Your task to perform on an android device: see tabs open on other devices in the chrome app Image 0: 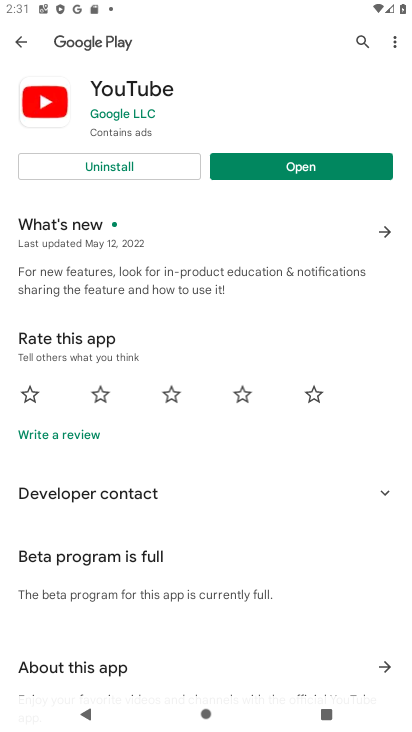
Step 0: press home button
Your task to perform on an android device: see tabs open on other devices in the chrome app Image 1: 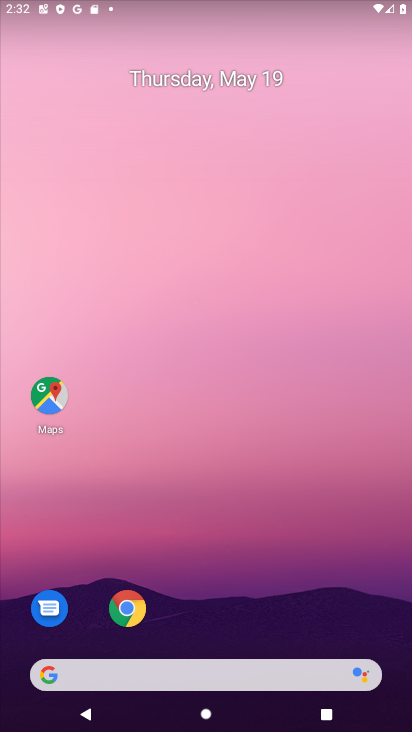
Step 1: drag from (252, 598) to (217, 68)
Your task to perform on an android device: see tabs open on other devices in the chrome app Image 2: 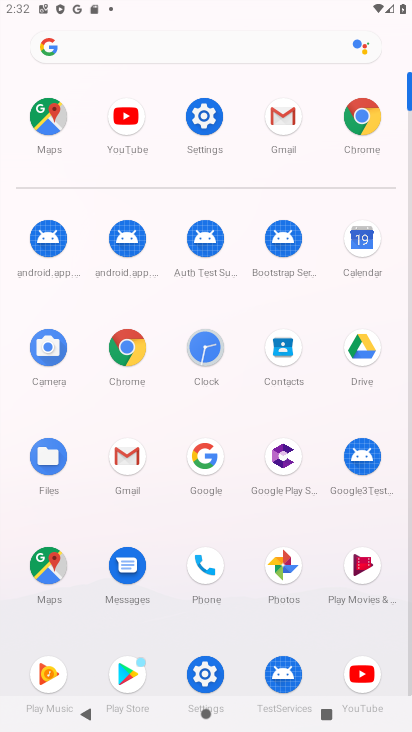
Step 2: click (365, 128)
Your task to perform on an android device: see tabs open on other devices in the chrome app Image 3: 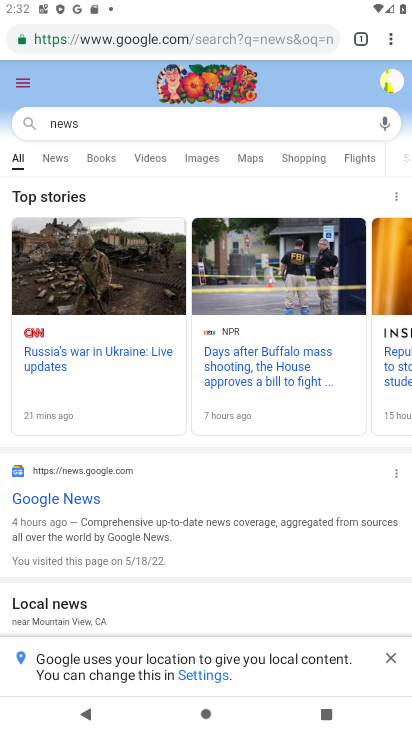
Step 3: click (391, 26)
Your task to perform on an android device: see tabs open on other devices in the chrome app Image 4: 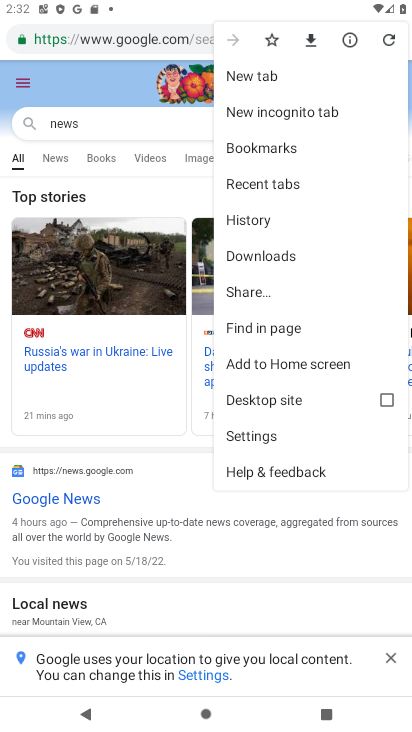
Step 4: click (329, 175)
Your task to perform on an android device: see tabs open on other devices in the chrome app Image 5: 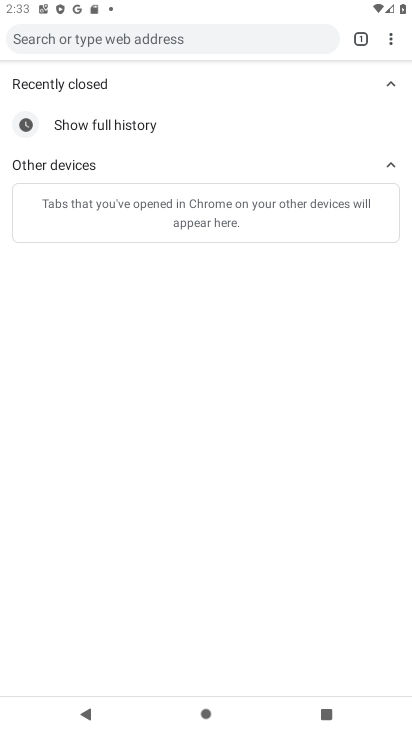
Step 5: task complete